Your task to perform on an android device: Check the weather Image 0: 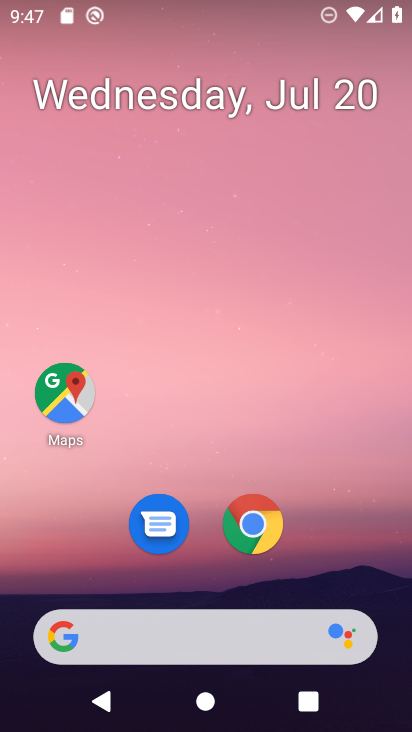
Step 0: press home button
Your task to perform on an android device: Check the weather Image 1: 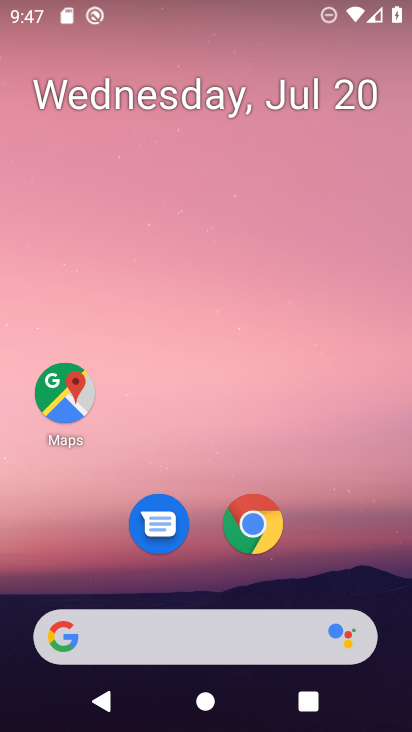
Step 1: click (151, 636)
Your task to perform on an android device: Check the weather Image 2: 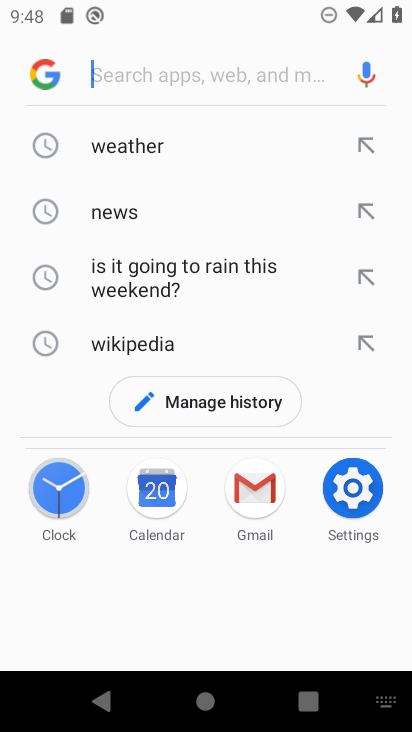
Step 2: click (132, 137)
Your task to perform on an android device: Check the weather Image 3: 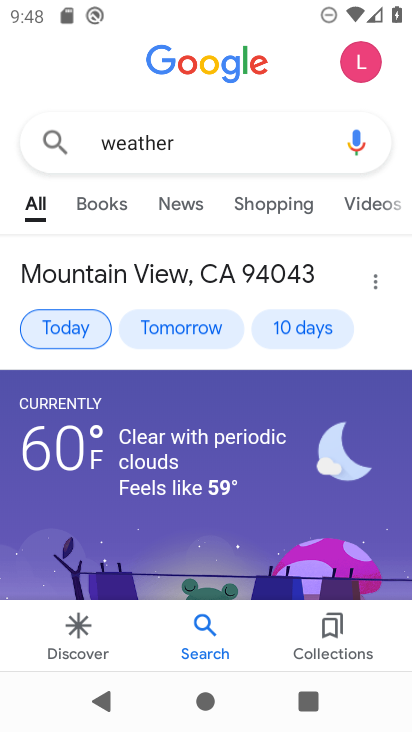
Step 3: task complete